Your task to perform on an android device: see sites visited before in the chrome app Image 0: 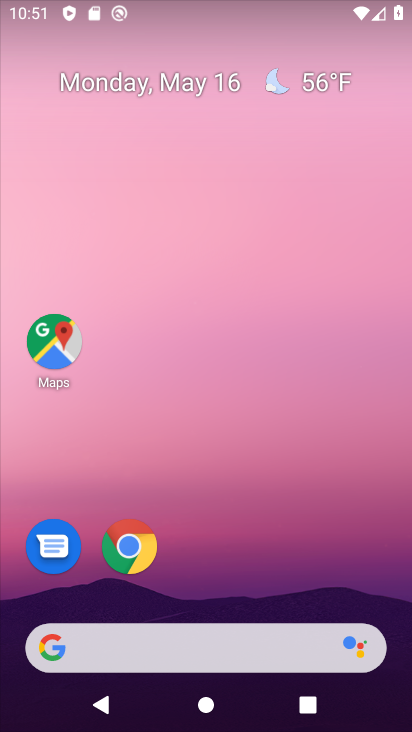
Step 0: drag from (292, 532) to (323, 0)
Your task to perform on an android device: see sites visited before in the chrome app Image 1: 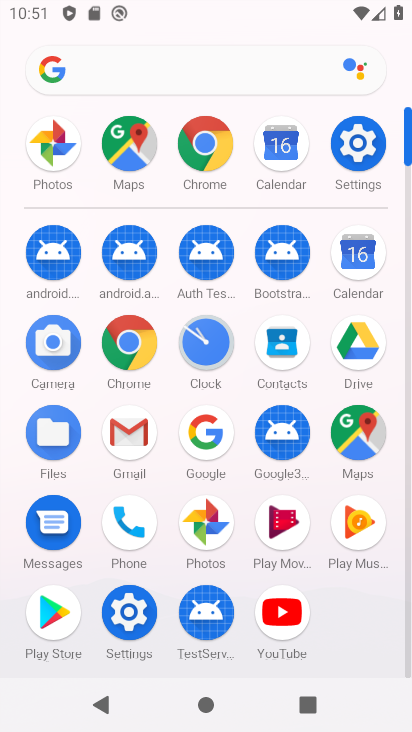
Step 1: click (205, 162)
Your task to perform on an android device: see sites visited before in the chrome app Image 2: 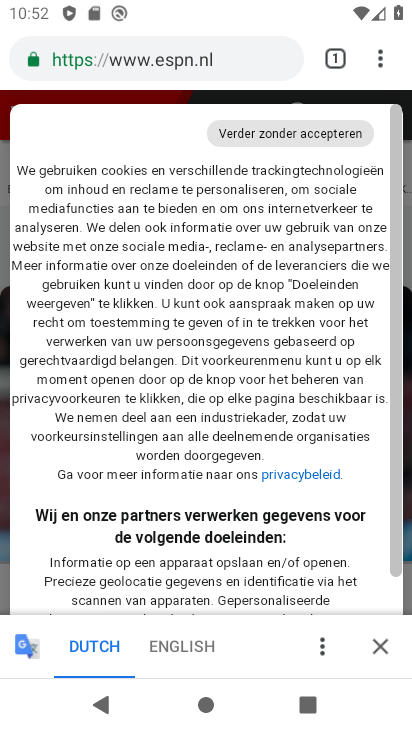
Step 2: task complete